Your task to perform on an android device: change text size in settings app Image 0: 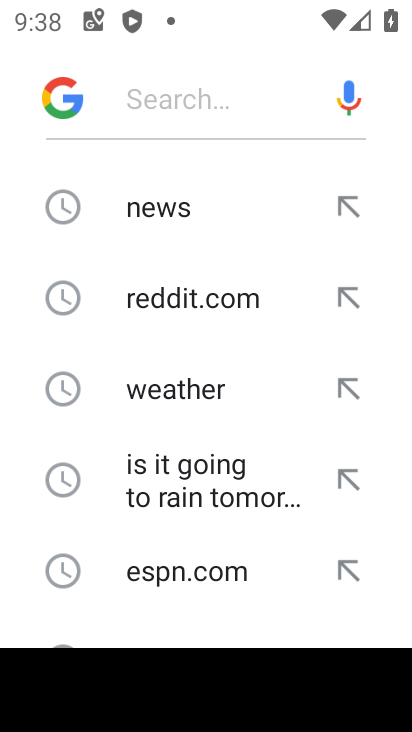
Step 0: press home button
Your task to perform on an android device: change text size in settings app Image 1: 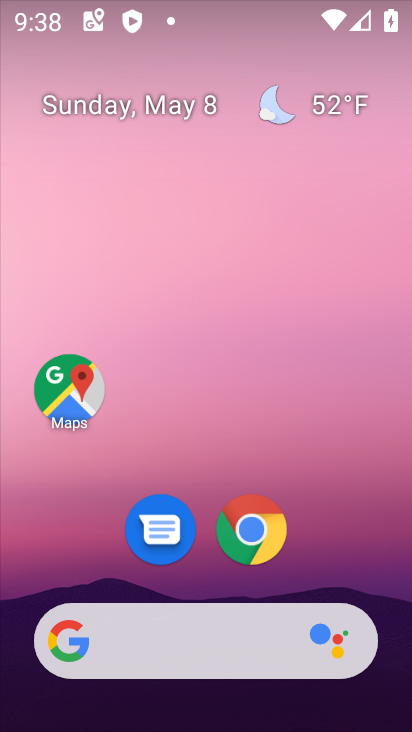
Step 1: drag from (371, 571) to (347, 105)
Your task to perform on an android device: change text size in settings app Image 2: 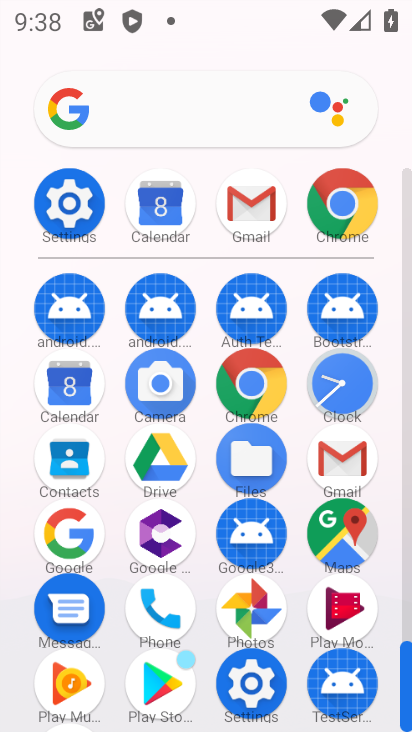
Step 2: click (77, 206)
Your task to perform on an android device: change text size in settings app Image 3: 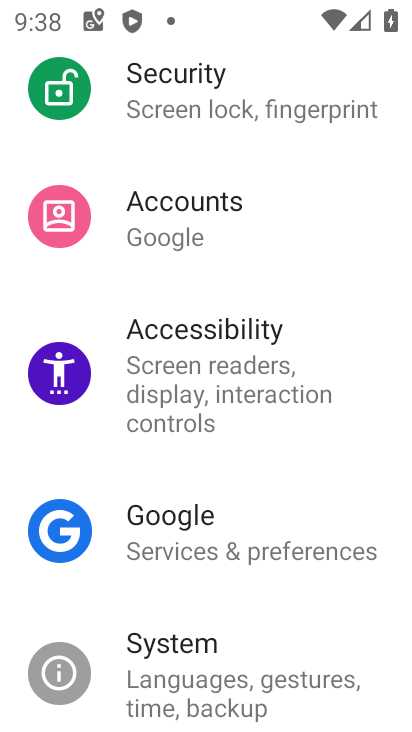
Step 3: drag from (223, 267) to (180, 585)
Your task to perform on an android device: change text size in settings app Image 4: 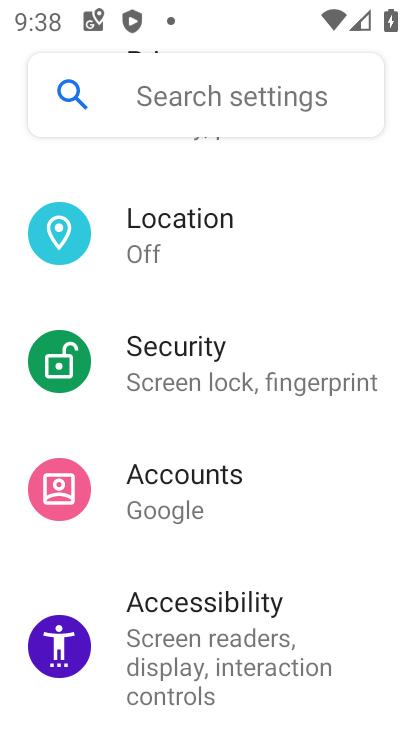
Step 4: drag from (237, 227) to (300, 646)
Your task to perform on an android device: change text size in settings app Image 5: 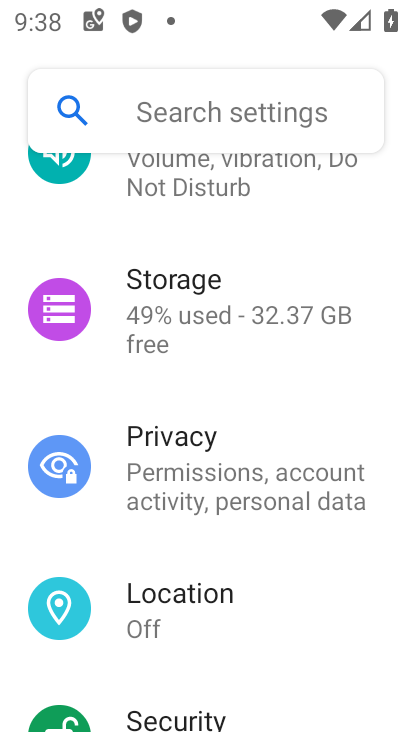
Step 5: drag from (303, 271) to (281, 575)
Your task to perform on an android device: change text size in settings app Image 6: 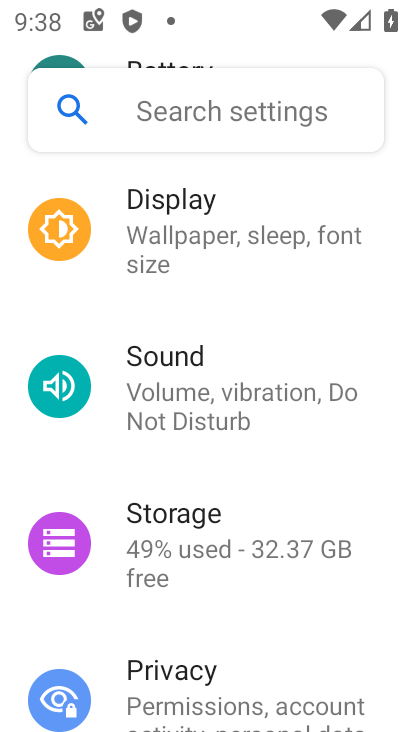
Step 6: drag from (264, 280) to (262, 553)
Your task to perform on an android device: change text size in settings app Image 7: 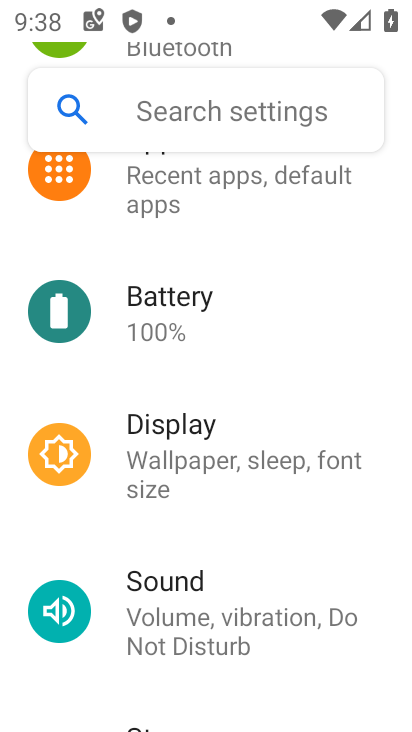
Step 7: drag from (260, 363) to (293, 630)
Your task to perform on an android device: change text size in settings app Image 8: 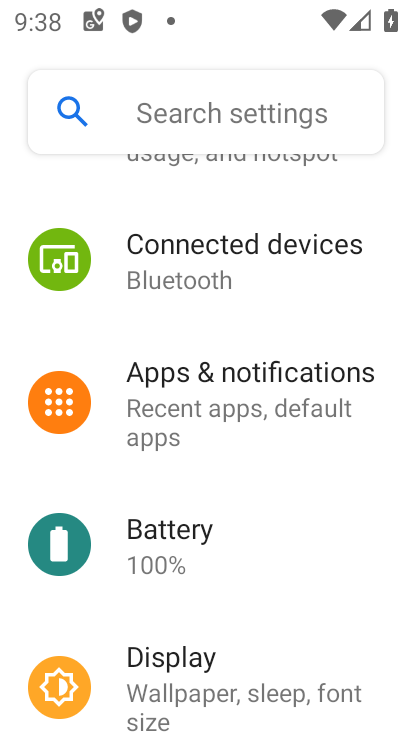
Step 8: drag from (282, 309) to (278, 602)
Your task to perform on an android device: change text size in settings app Image 9: 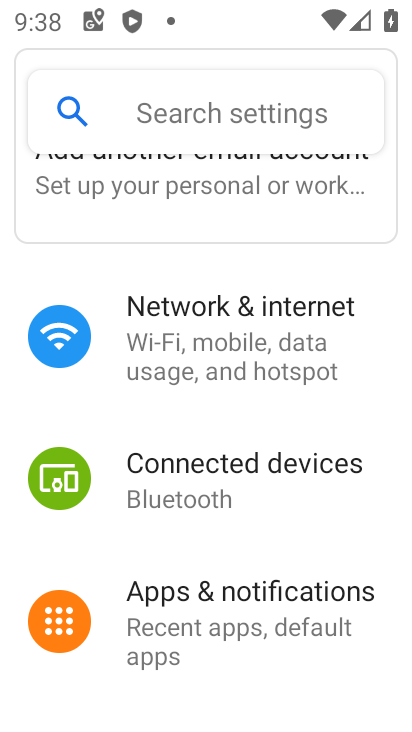
Step 9: drag from (248, 691) to (273, 360)
Your task to perform on an android device: change text size in settings app Image 10: 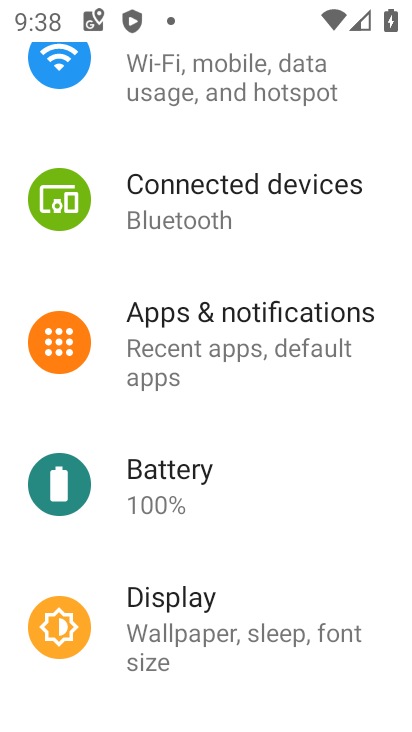
Step 10: click (130, 616)
Your task to perform on an android device: change text size in settings app Image 11: 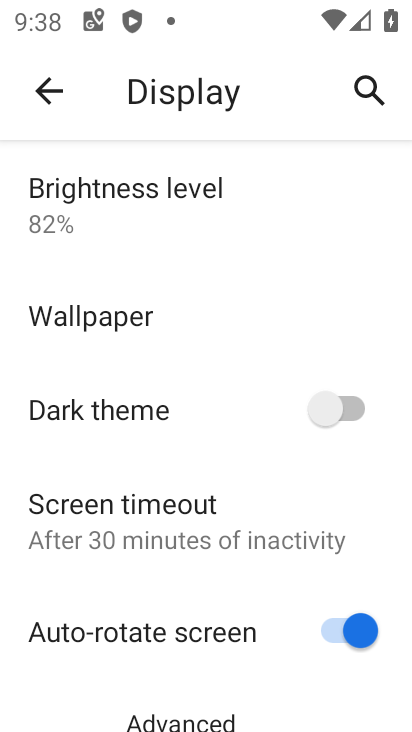
Step 11: drag from (88, 666) to (201, 270)
Your task to perform on an android device: change text size in settings app Image 12: 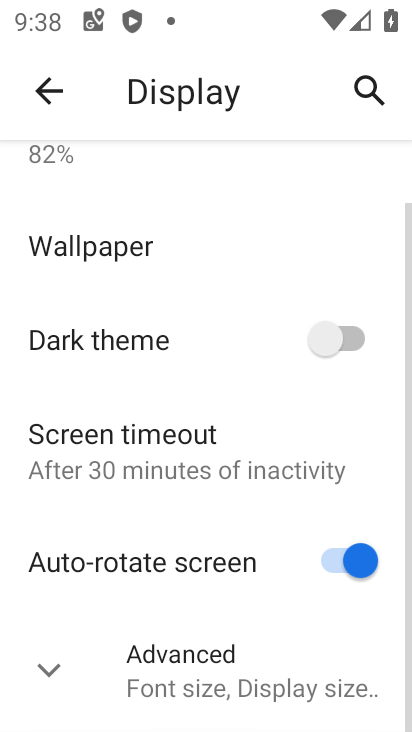
Step 12: click (149, 658)
Your task to perform on an android device: change text size in settings app Image 13: 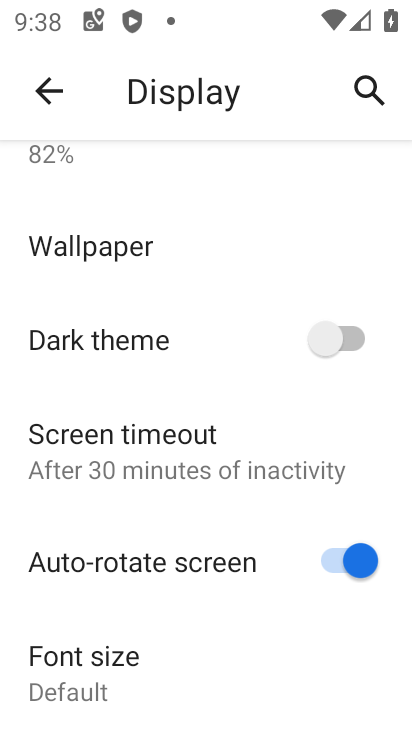
Step 13: drag from (190, 669) to (229, 362)
Your task to perform on an android device: change text size in settings app Image 14: 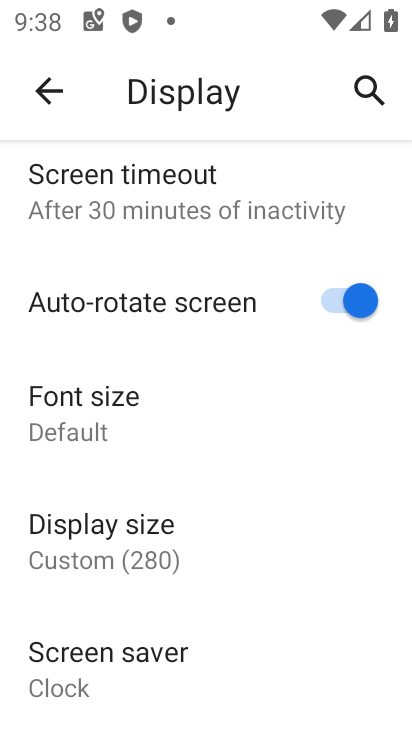
Step 14: click (170, 414)
Your task to perform on an android device: change text size in settings app Image 15: 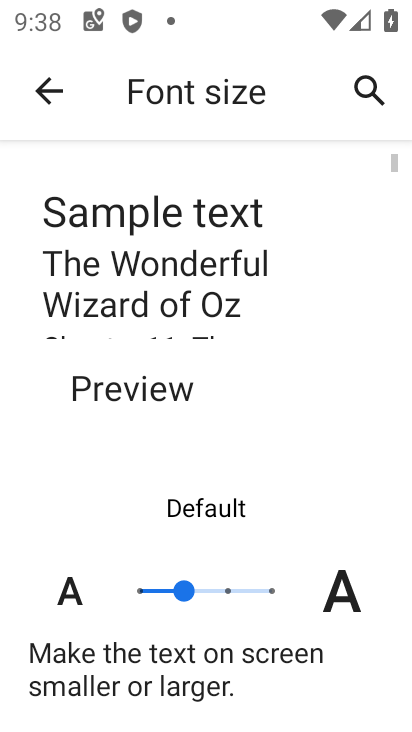
Step 15: click (144, 591)
Your task to perform on an android device: change text size in settings app Image 16: 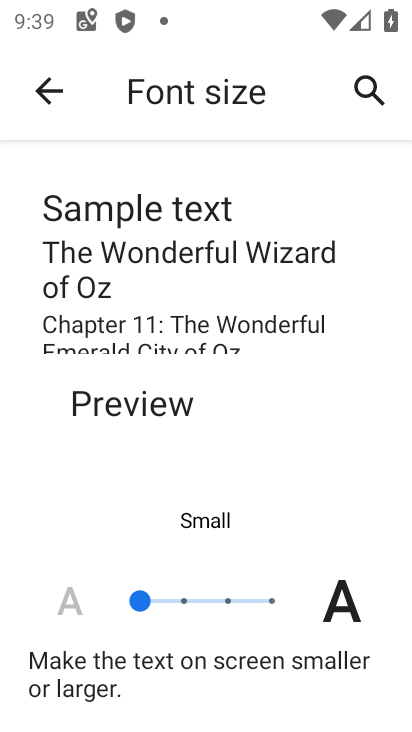
Step 16: task complete